Your task to perform on an android device: Set the phone to "Do not disturb". Image 0: 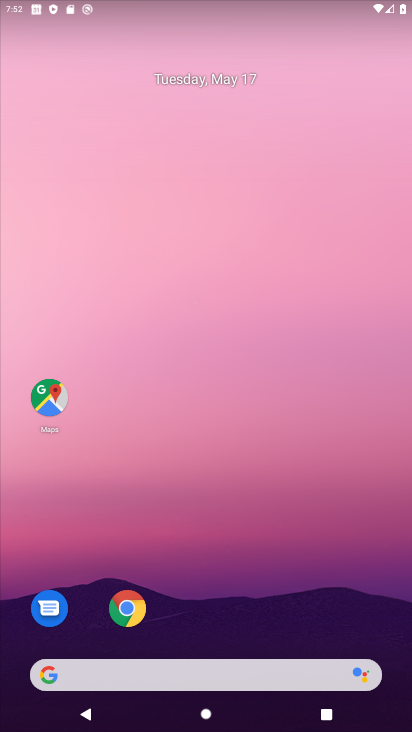
Step 0: drag from (190, 631) to (310, 33)
Your task to perform on an android device: Set the phone to "Do not disturb". Image 1: 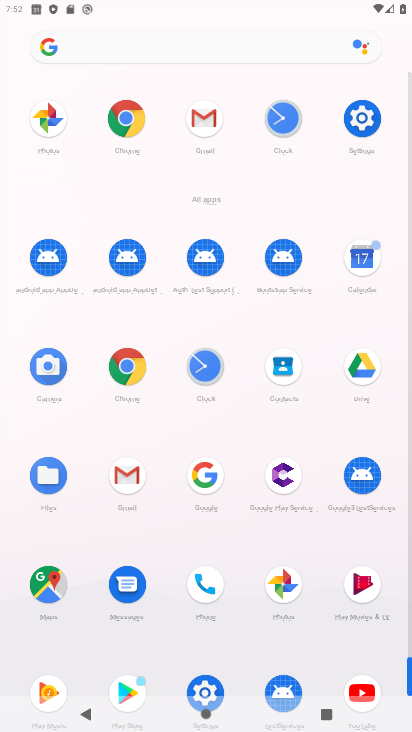
Step 1: drag from (228, 521) to (230, 376)
Your task to perform on an android device: Set the phone to "Do not disturb". Image 2: 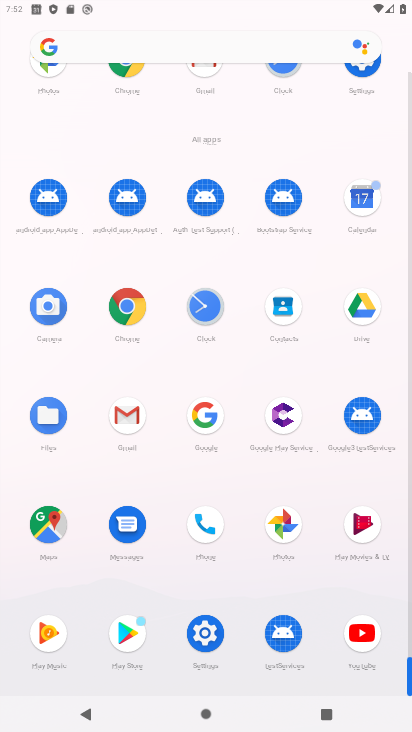
Step 2: click (201, 643)
Your task to perform on an android device: Set the phone to "Do not disturb". Image 3: 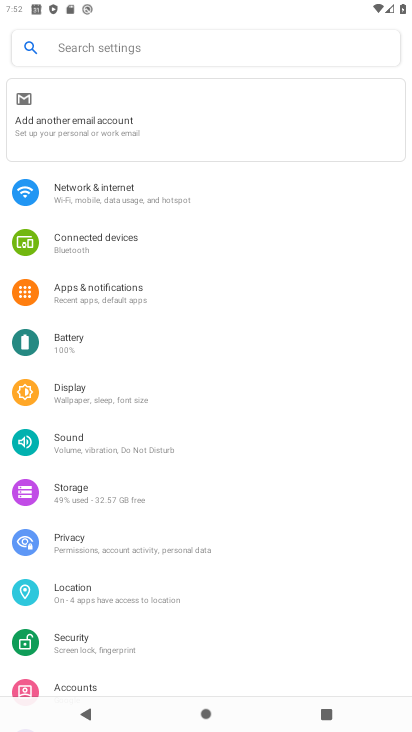
Step 3: click (106, 437)
Your task to perform on an android device: Set the phone to "Do not disturb". Image 4: 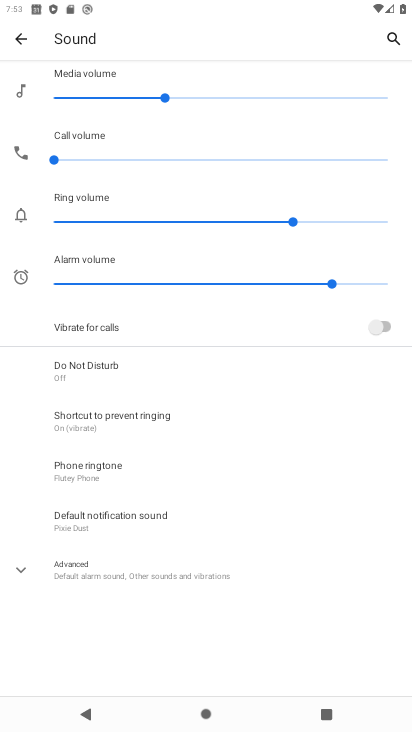
Step 4: click (105, 375)
Your task to perform on an android device: Set the phone to "Do not disturb". Image 5: 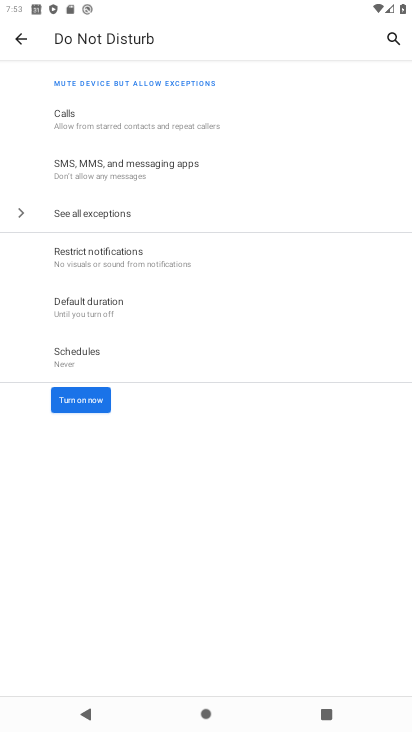
Step 5: click (92, 404)
Your task to perform on an android device: Set the phone to "Do not disturb". Image 6: 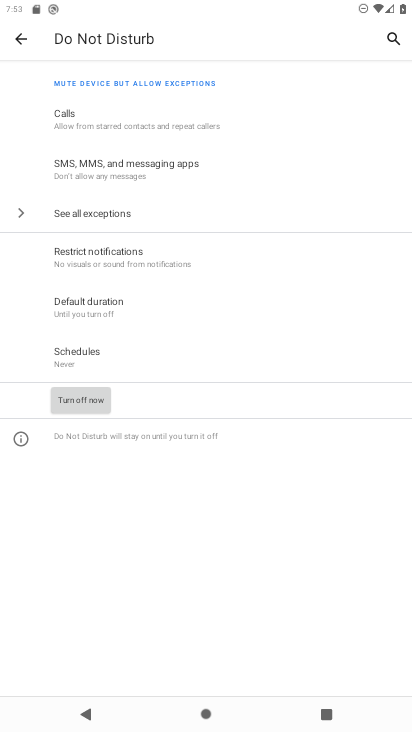
Step 6: task complete